Your task to perform on an android device: toggle pop-ups in chrome Image 0: 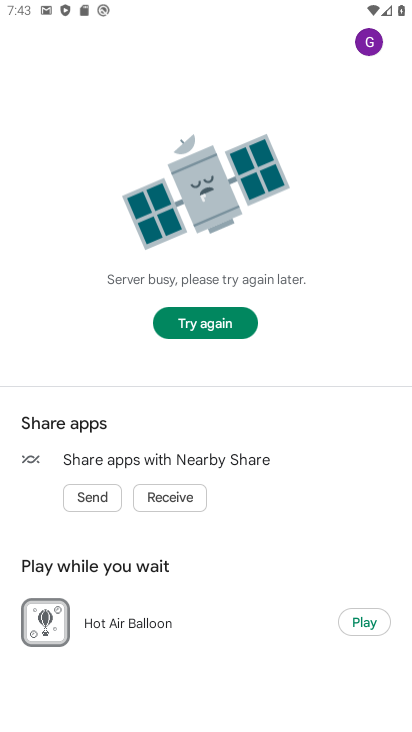
Step 0: press home button
Your task to perform on an android device: toggle pop-ups in chrome Image 1: 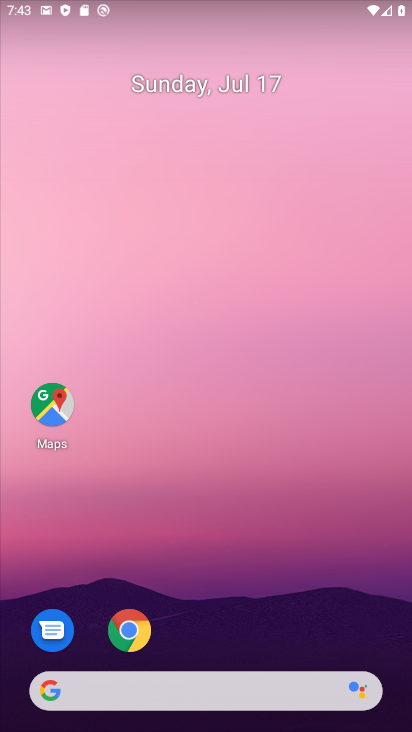
Step 1: drag from (256, 516) to (276, 199)
Your task to perform on an android device: toggle pop-ups in chrome Image 2: 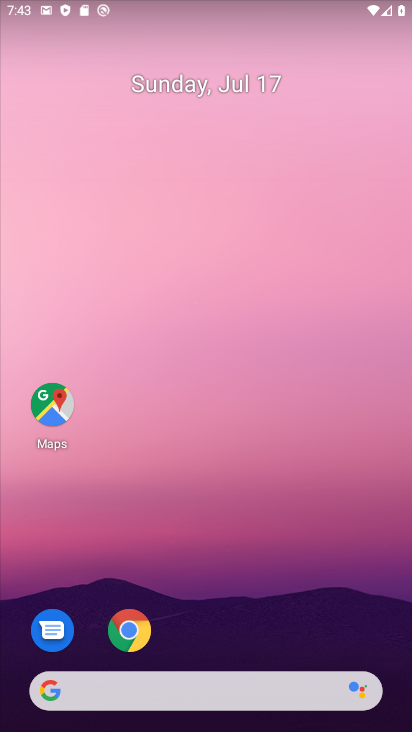
Step 2: drag from (222, 609) to (233, 239)
Your task to perform on an android device: toggle pop-ups in chrome Image 3: 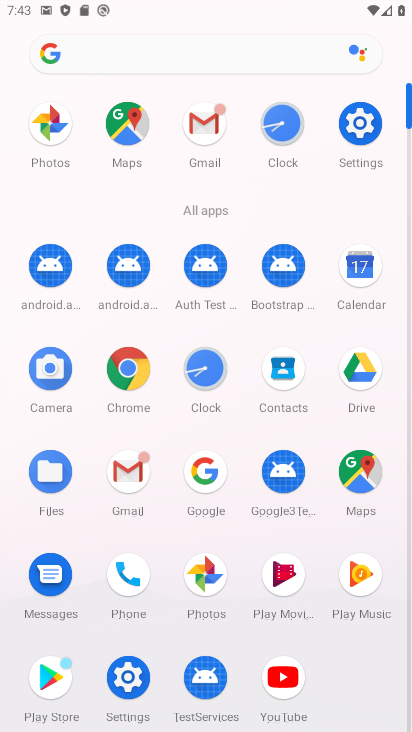
Step 3: click (350, 269)
Your task to perform on an android device: toggle pop-ups in chrome Image 4: 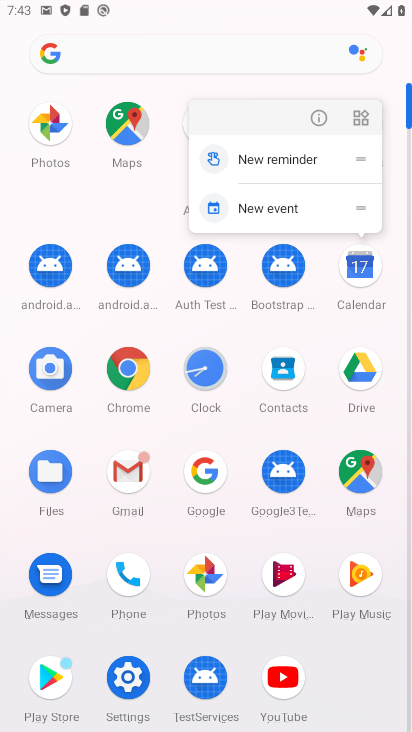
Step 4: click (362, 277)
Your task to perform on an android device: toggle pop-ups in chrome Image 5: 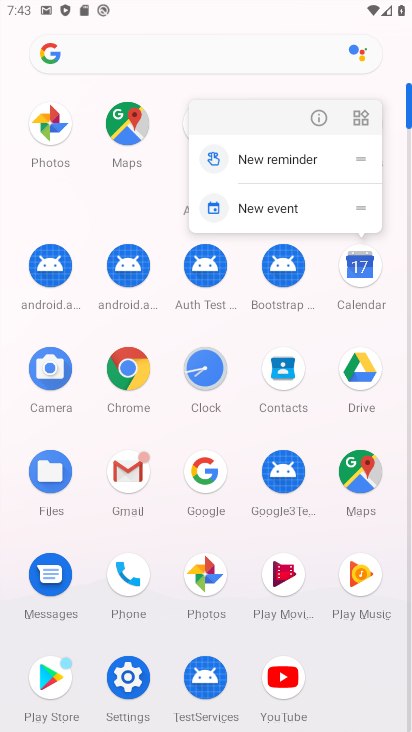
Step 5: click (362, 274)
Your task to perform on an android device: toggle pop-ups in chrome Image 6: 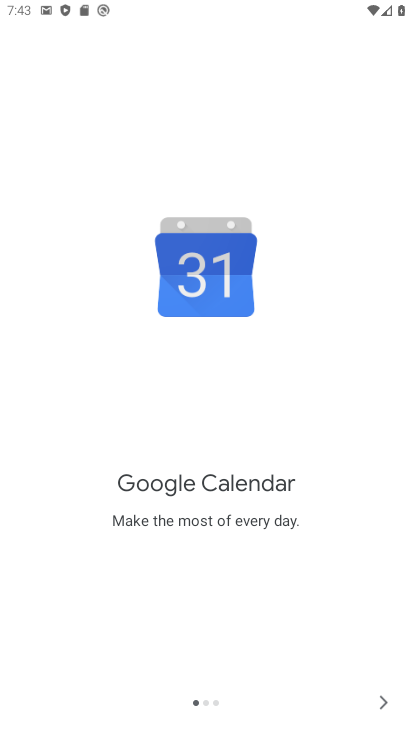
Step 6: click (382, 700)
Your task to perform on an android device: toggle pop-ups in chrome Image 7: 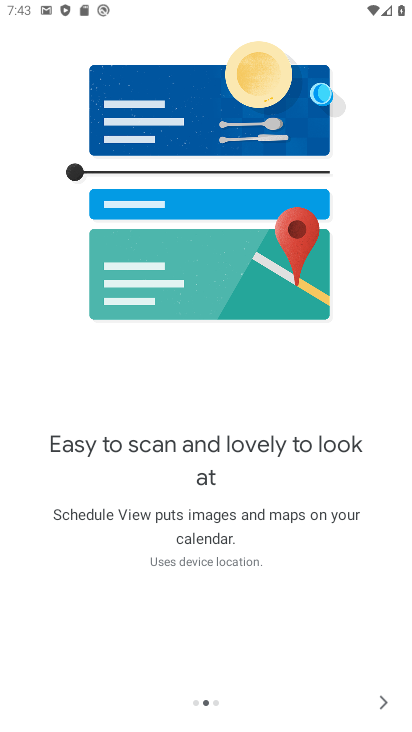
Step 7: click (382, 700)
Your task to perform on an android device: toggle pop-ups in chrome Image 8: 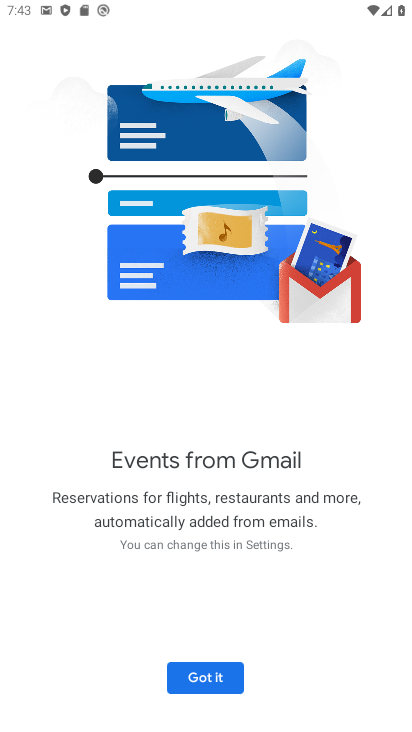
Step 8: click (382, 700)
Your task to perform on an android device: toggle pop-ups in chrome Image 9: 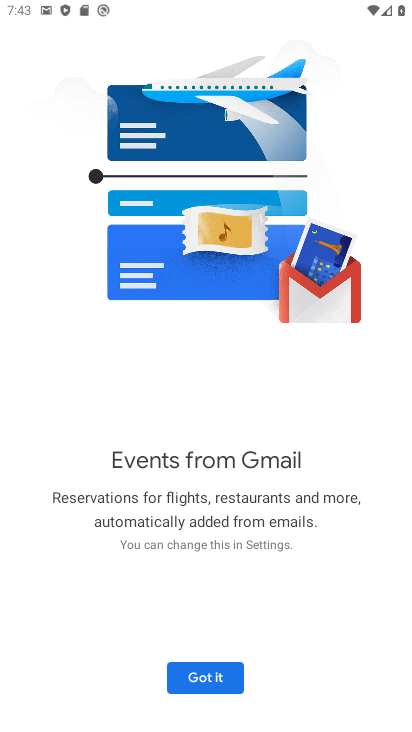
Step 9: click (192, 664)
Your task to perform on an android device: toggle pop-ups in chrome Image 10: 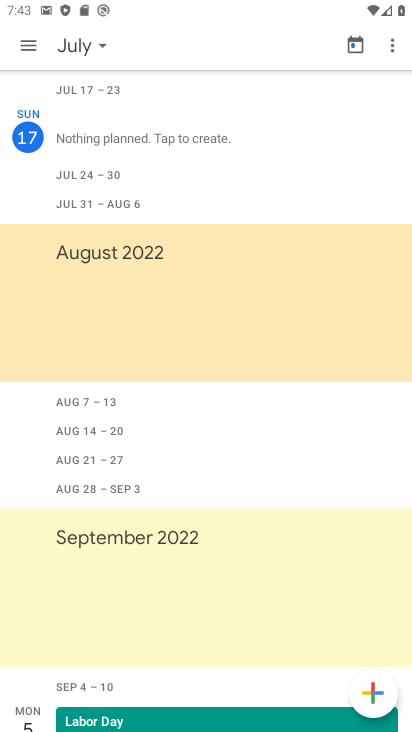
Step 10: task complete